Your task to perform on an android device: Show me popular games on the Play Store Image 0: 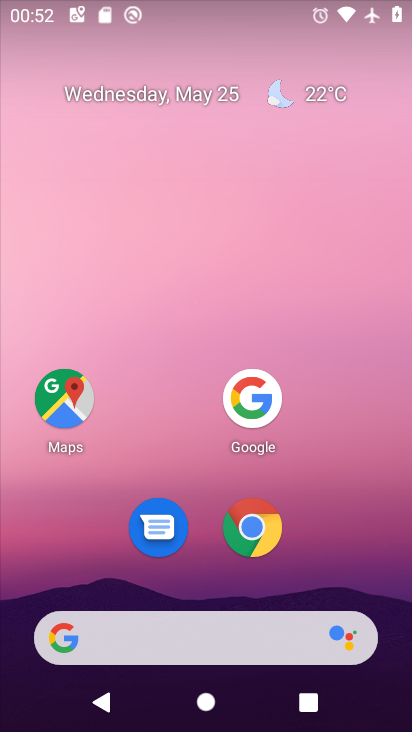
Step 0: press home button
Your task to perform on an android device: Show me popular games on the Play Store Image 1: 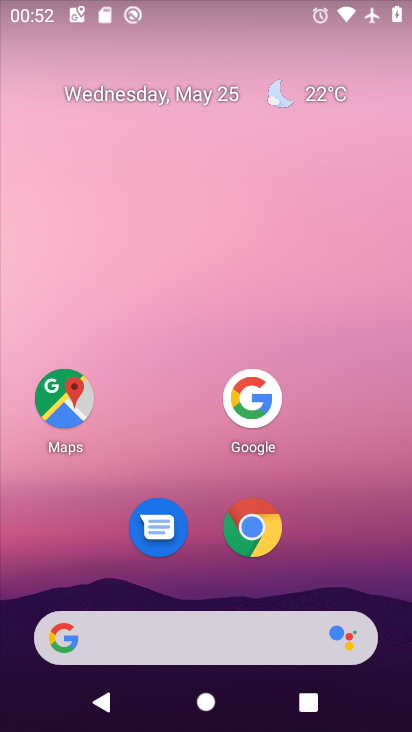
Step 1: drag from (232, 644) to (331, 208)
Your task to perform on an android device: Show me popular games on the Play Store Image 2: 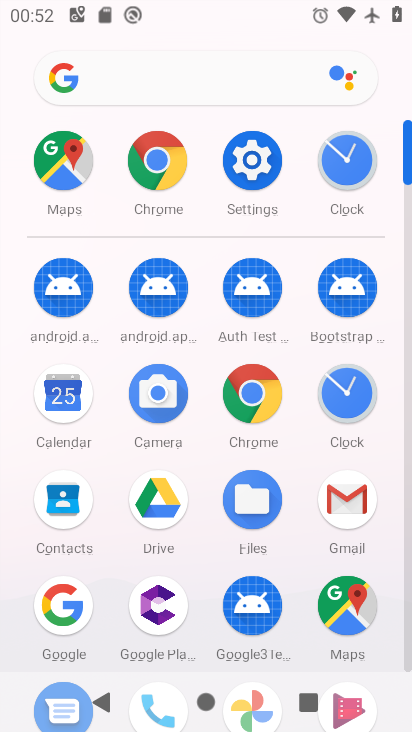
Step 2: drag from (210, 598) to (306, 236)
Your task to perform on an android device: Show me popular games on the Play Store Image 3: 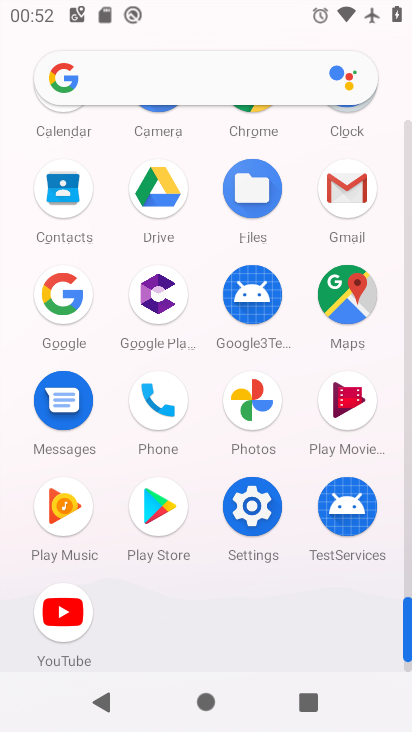
Step 3: click (156, 513)
Your task to perform on an android device: Show me popular games on the Play Store Image 4: 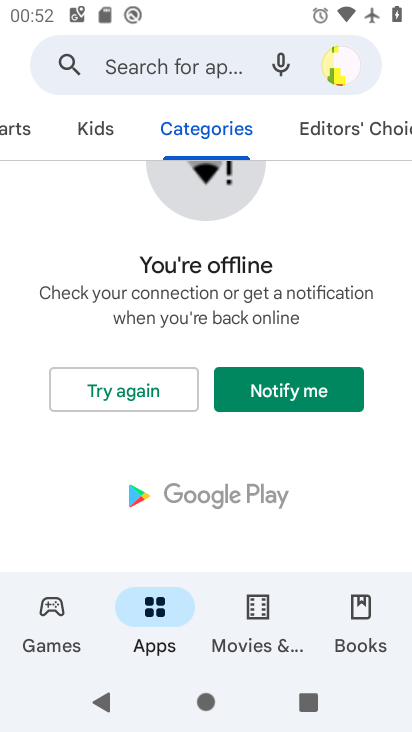
Step 4: drag from (119, 136) to (380, 143)
Your task to perform on an android device: Show me popular games on the Play Store Image 5: 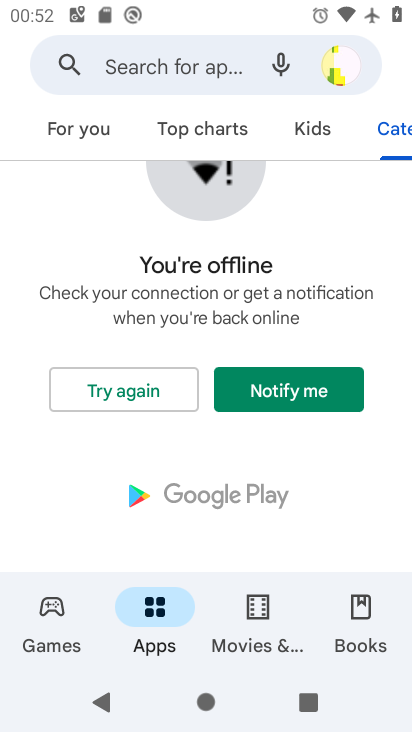
Step 5: click (52, 642)
Your task to perform on an android device: Show me popular games on the Play Store Image 6: 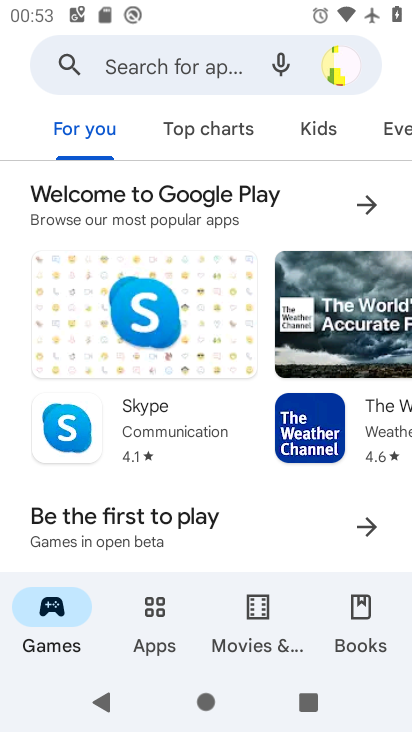
Step 6: task complete